Your task to perform on an android device: Play the last video I watched on Youtube Image 0: 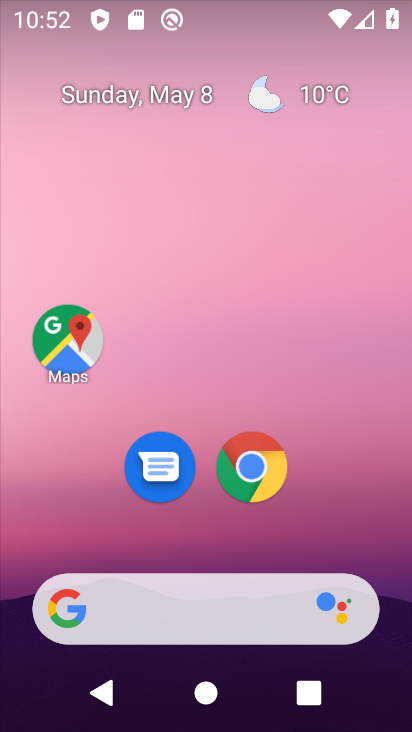
Step 0: drag from (366, 543) to (402, 130)
Your task to perform on an android device: Play the last video I watched on Youtube Image 1: 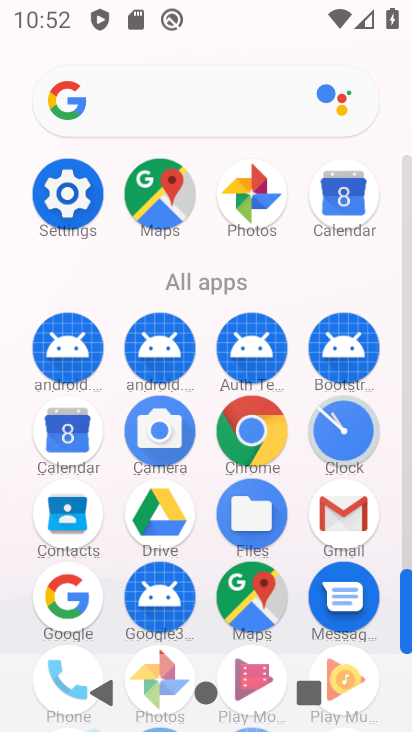
Step 1: drag from (395, 554) to (406, 289)
Your task to perform on an android device: Play the last video I watched on Youtube Image 2: 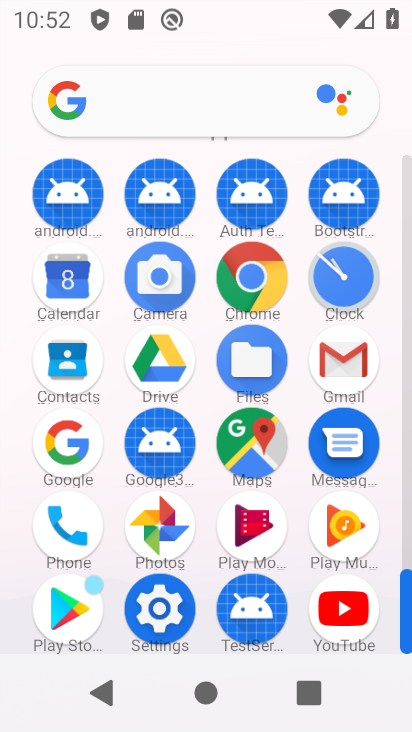
Step 2: click (344, 599)
Your task to perform on an android device: Play the last video I watched on Youtube Image 3: 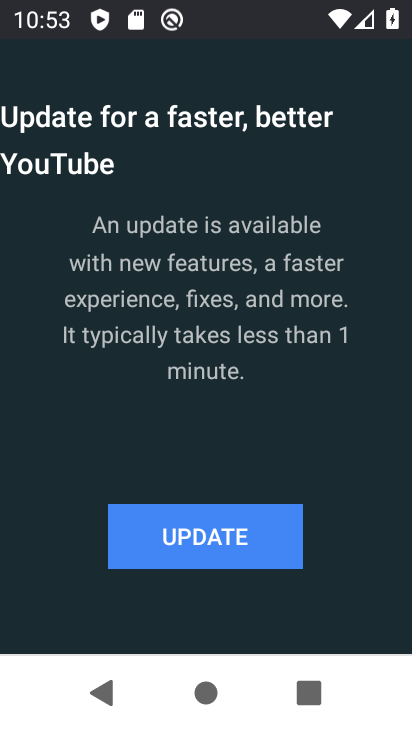
Step 3: click (199, 528)
Your task to perform on an android device: Play the last video I watched on Youtube Image 4: 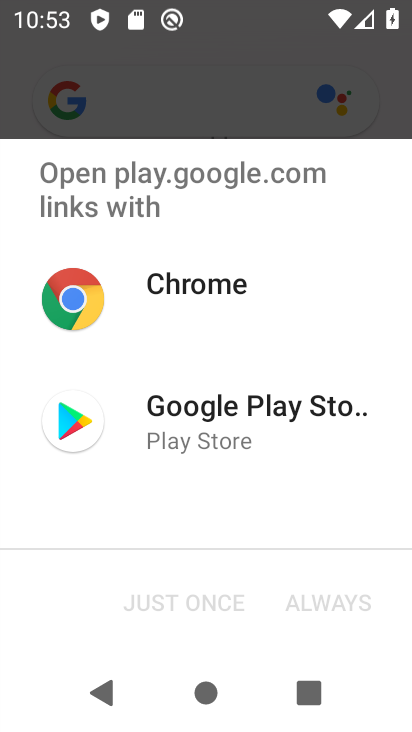
Step 4: click (246, 447)
Your task to perform on an android device: Play the last video I watched on Youtube Image 5: 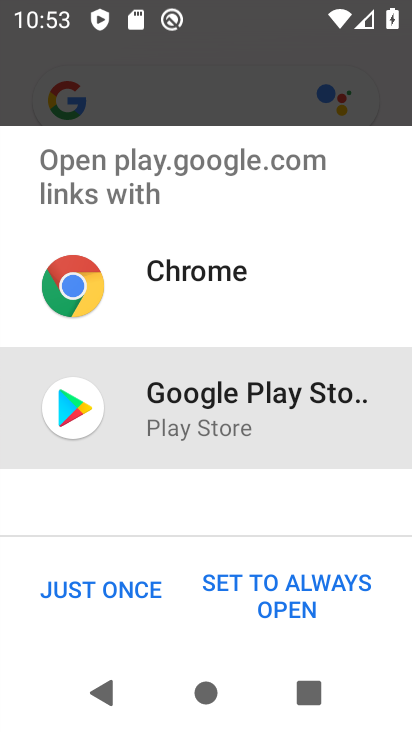
Step 5: click (103, 592)
Your task to perform on an android device: Play the last video I watched on Youtube Image 6: 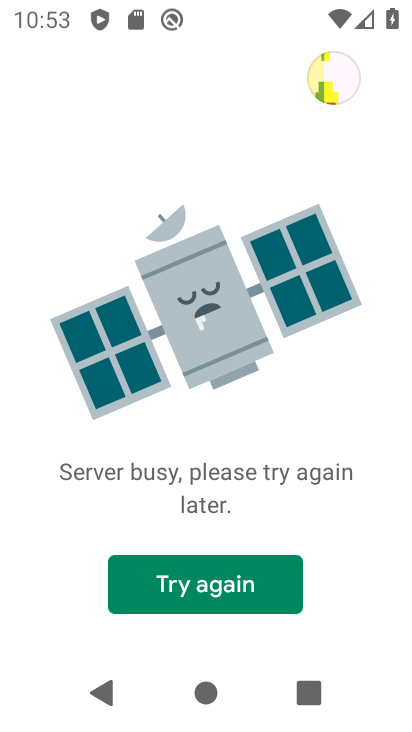
Step 6: task complete